Your task to perform on an android device: What is the recent news? Image 0: 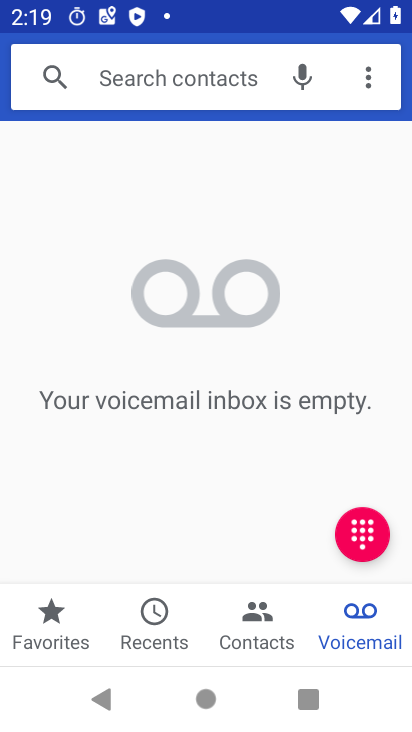
Step 0: press home button
Your task to perform on an android device: What is the recent news? Image 1: 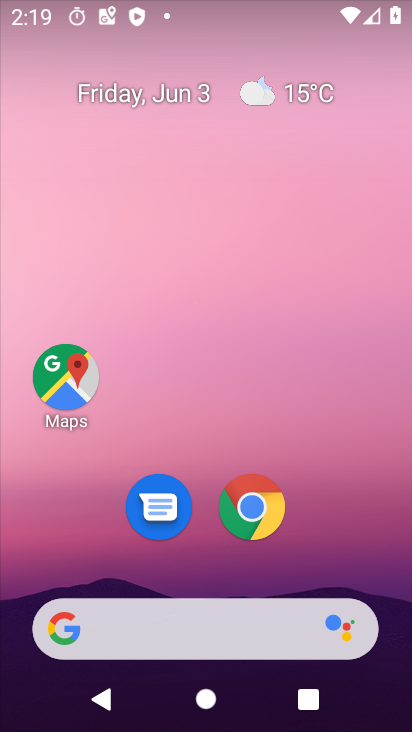
Step 1: drag from (400, 593) to (303, 51)
Your task to perform on an android device: What is the recent news? Image 2: 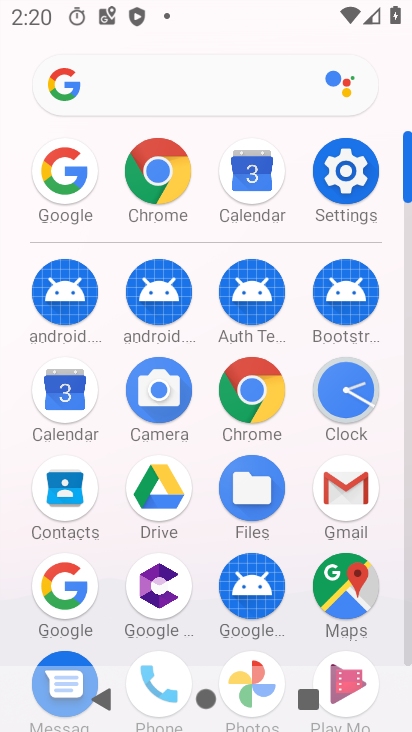
Step 2: click (53, 591)
Your task to perform on an android device: What is the recent news? Image 3: 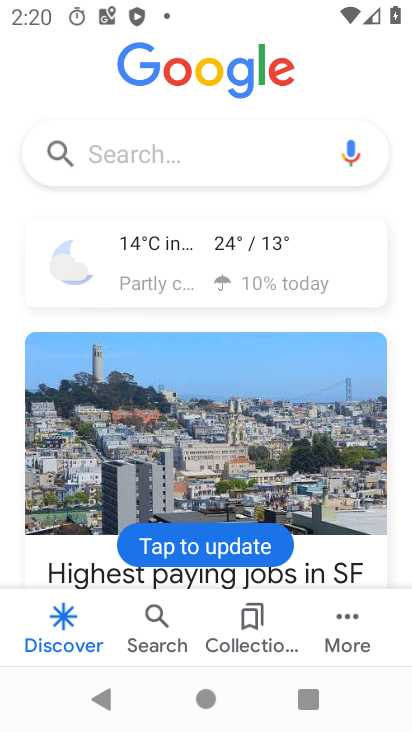
Step 3: click (165, 162)
Your task to perform on an android device: What is the recent news? Image 4: 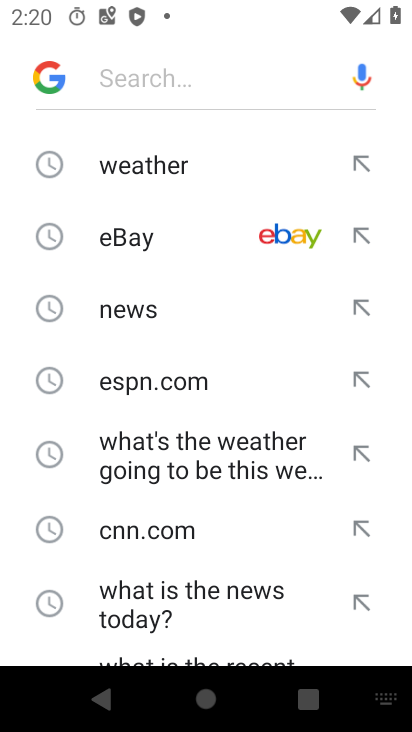
Step 4: drag from (139, 600) to (230, 175)
Your task to perform on an android device: What is the recent news? Image 5: 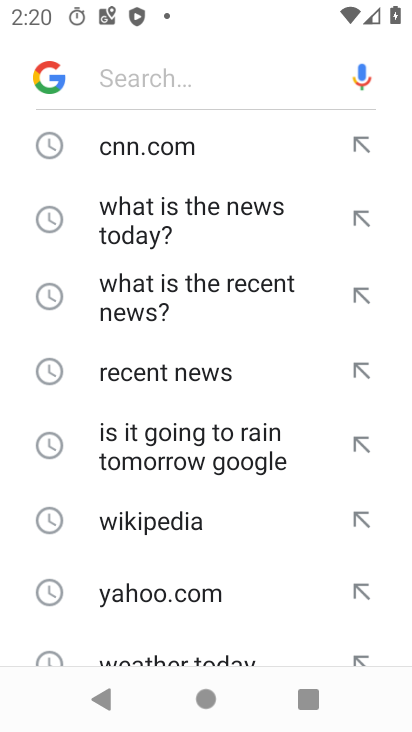
Step 5: drag from (163, 594) to (251, 174)
Your task to perform on an android device: What is the recent news? Image 6: 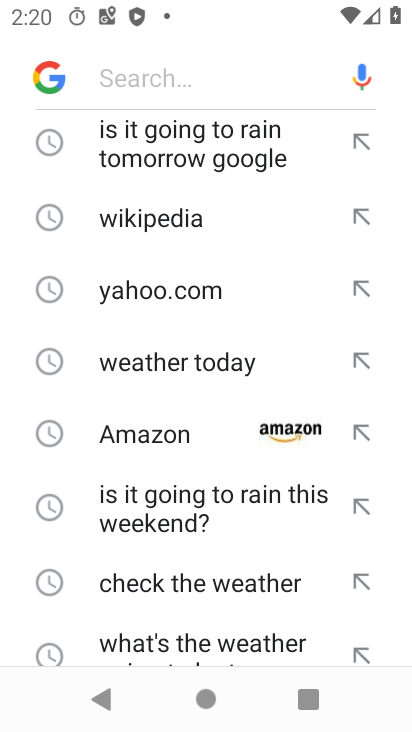
Step 6: drag from (215, 180) to (217, 555)
Your task to perform on an android device: What is the recent news? Image 7: 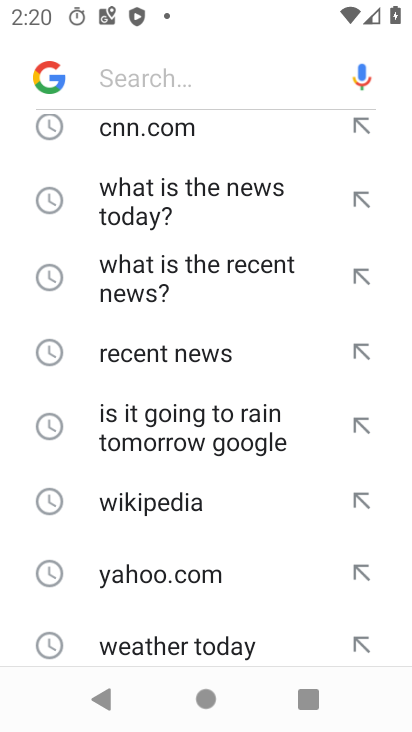
Step 7: click (183, 364)
Your task to perform on an android device: What is the recent news? Image 8: 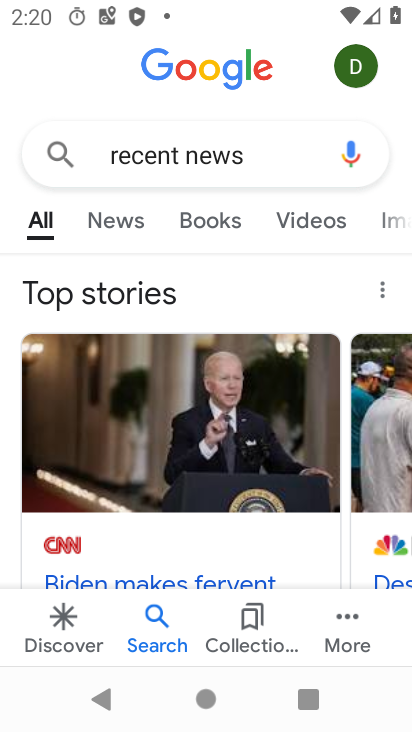
Step 8: task complete